Your task to perform on an android device: open app "WhatsApp Messenger" (install if not already installed) and enter user name: "cartons@outlook.com" and password: "approximated" Image 0: 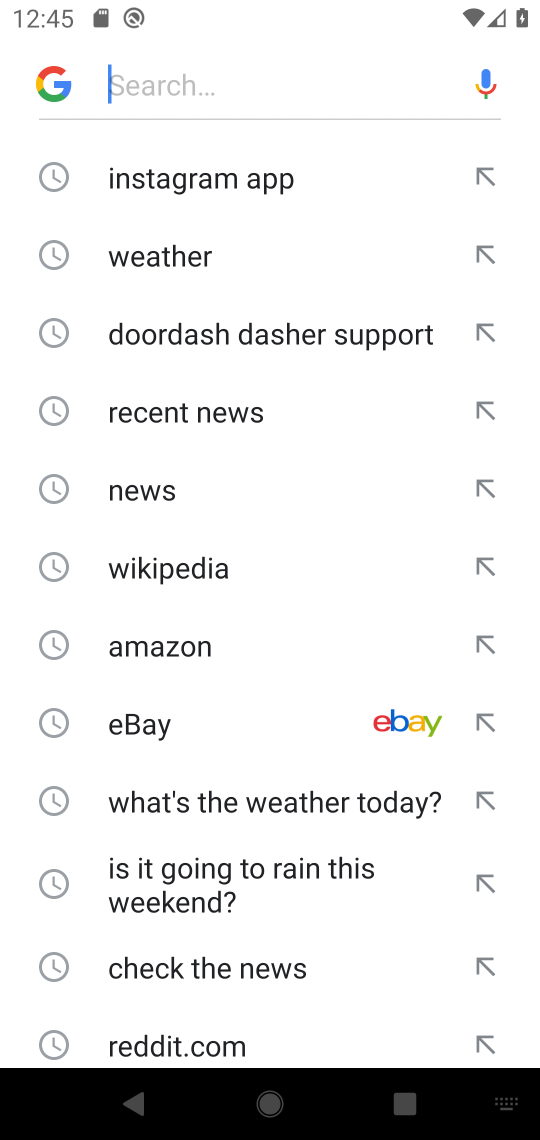
Step 0: press home button
Your task to perform on an android device: open app "WhatsApp Messenger" (install if not already installed) and enter user name: "cartons@outlook.com" and password: "approximated" Image 1: 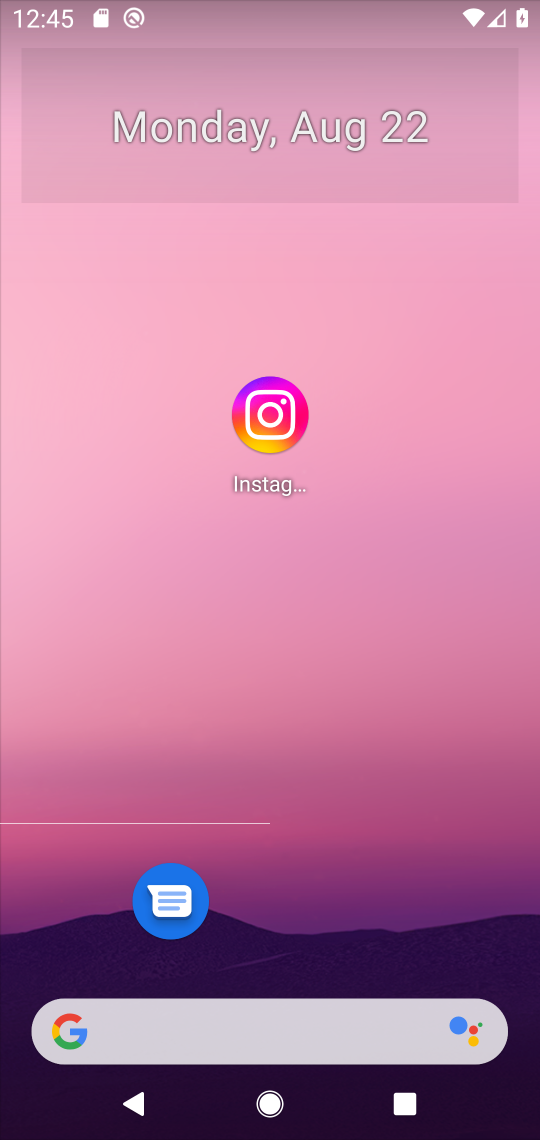
Step 1: drag from (338, 985) to (277, 47)
Your task to perform on an android device: open app "WhatsApp Messenger" (install if not already installed) and enter user name: "cartons@outlook.com" and password: "approximated" Image 2: 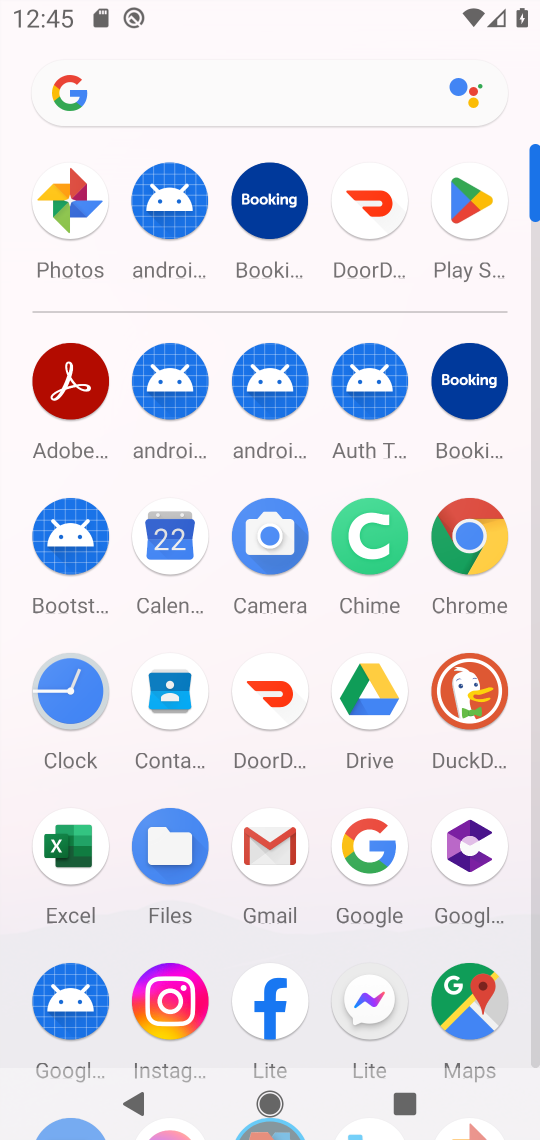
Step 2: click (476, 222)
Your task to perform on an android device: open app "WhatsApp Messenger" (install if not already installed) and enter user name: "cartons@outlook.com" and password: "approximated" Image 3: 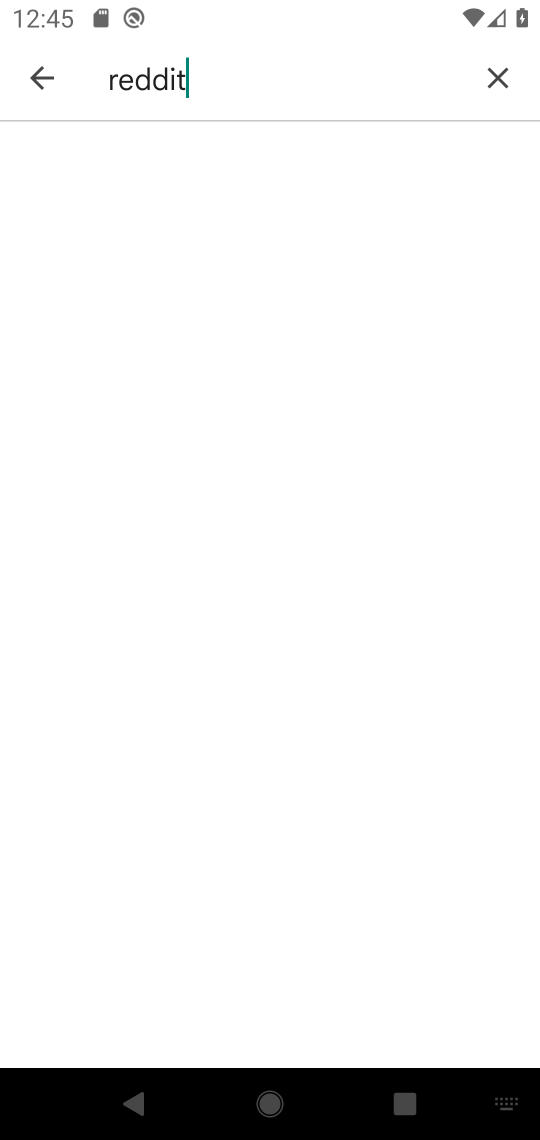
Step 3: click (494, 95)
Your task to perform on an android device: open app "WhatsApp Messenger" (install if not already installed) and enter user name: "cartons@outlook.com" and password: "approximated" Image 4: 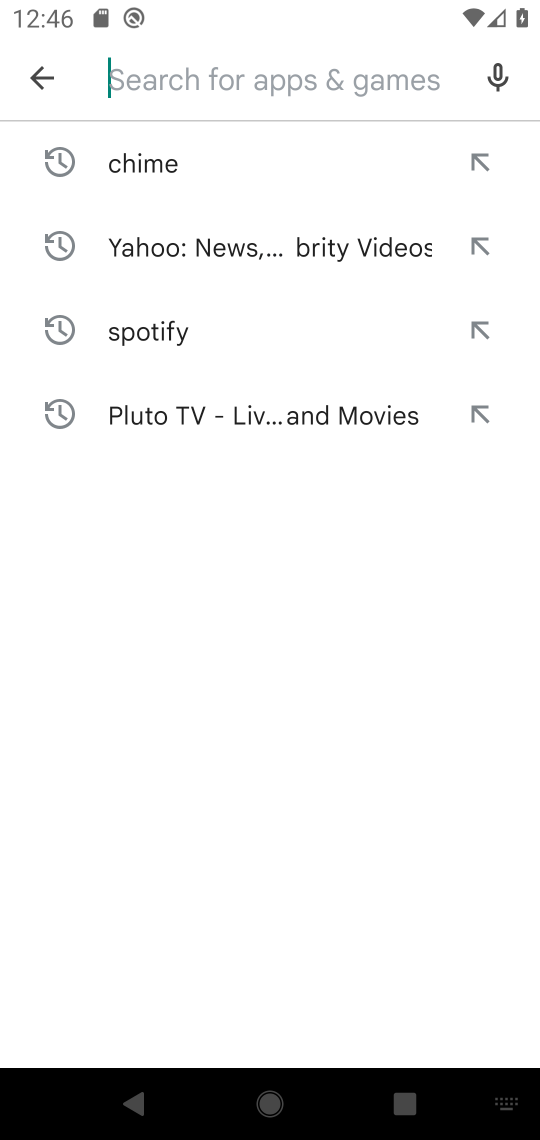
Step 4: type "whatsapp"
Your task to perform on an android device: open app "WhatsApp Messenger" (install if not already installed) and enter user name: "cartons@outlook.com" and password: "approximated" Image 5: 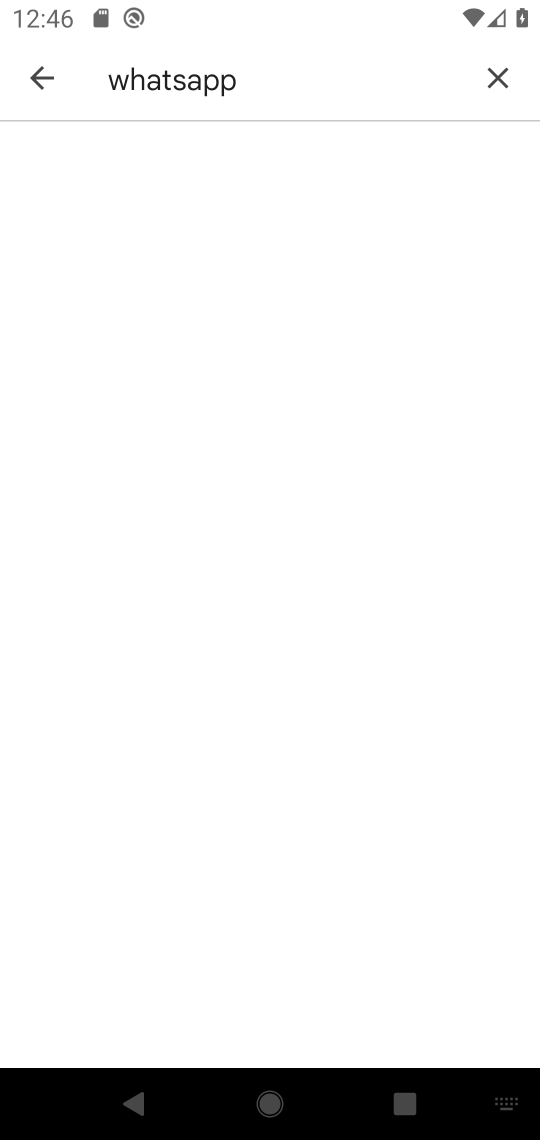
Step 5: task complete